Your task to perform on an android device: How big is a giraffe? Image 0: 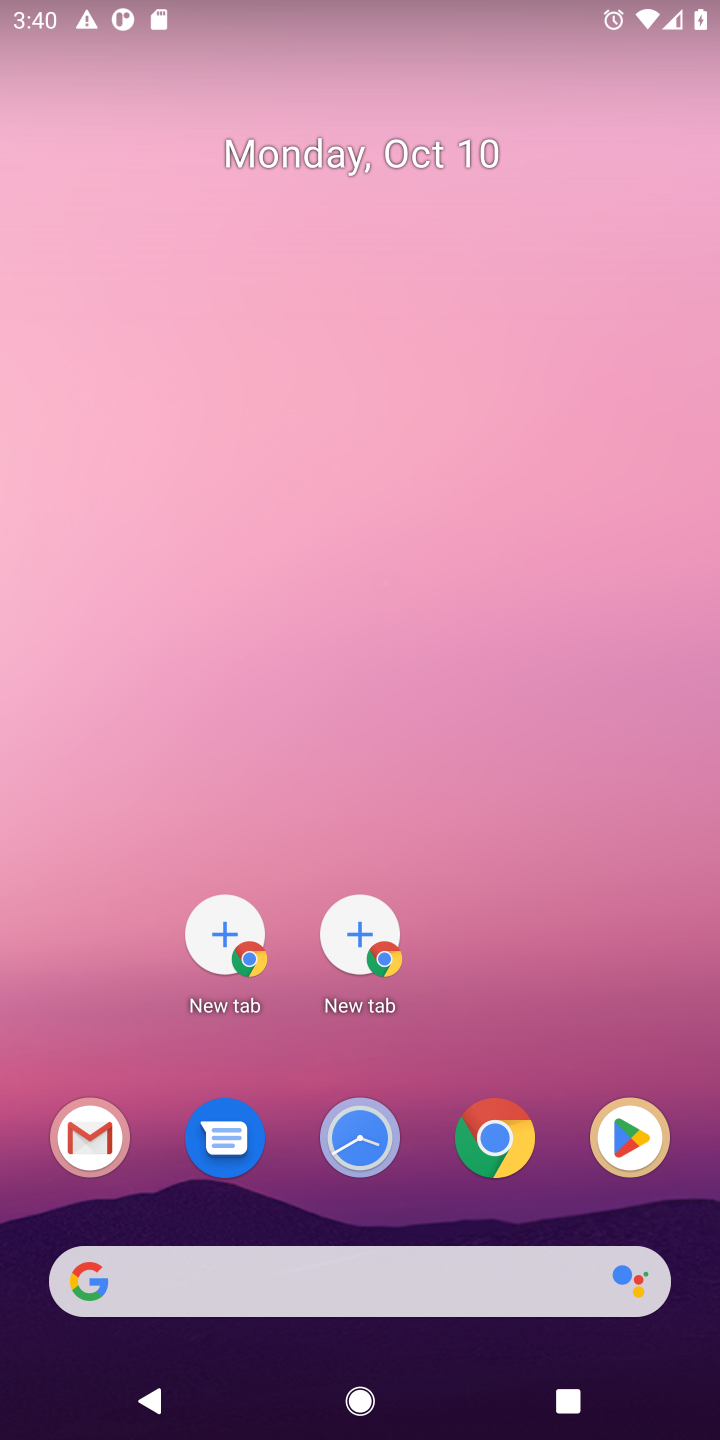
Step 0: click (488, 1156)
Your task to perform on an android device: How big is a giraffe? Image 1: 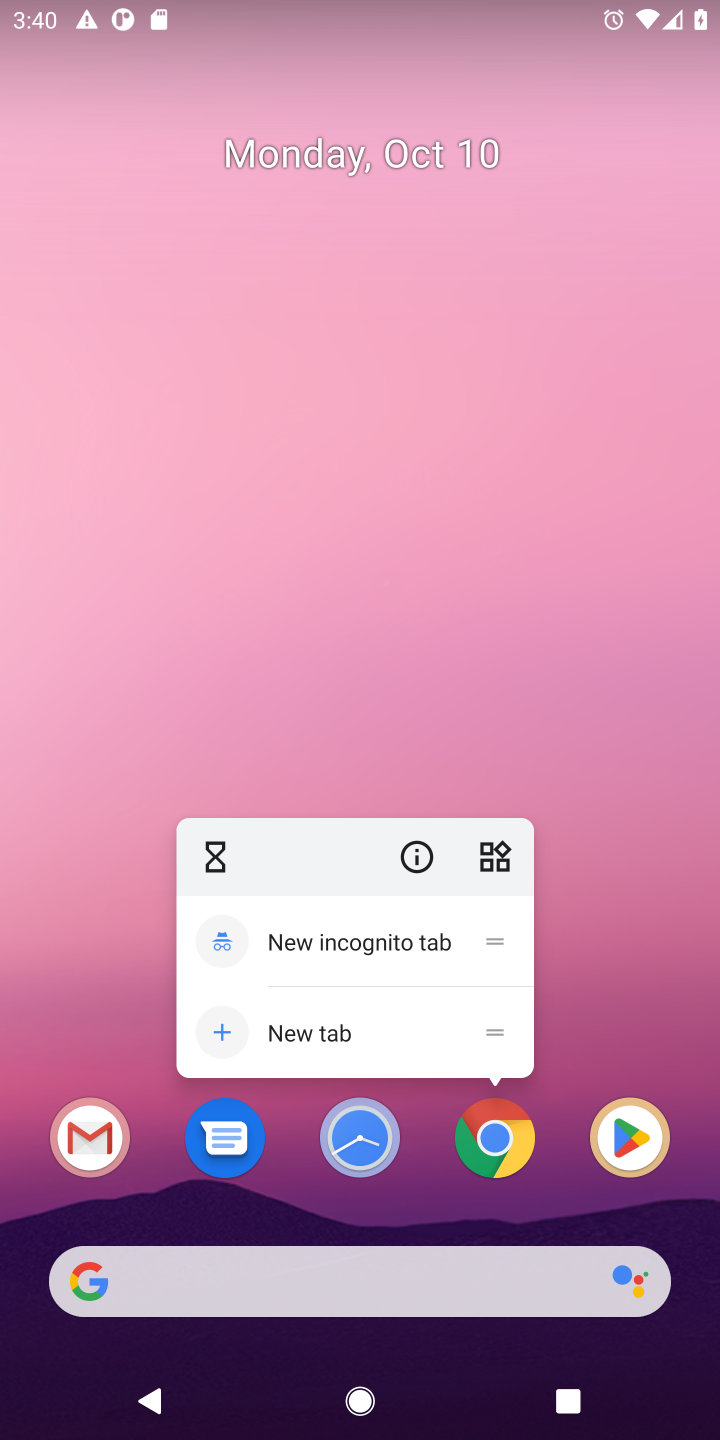
Step 1: click (507, 1148)
Your task to perform on an android device: How big is a giraffe? Image 2: 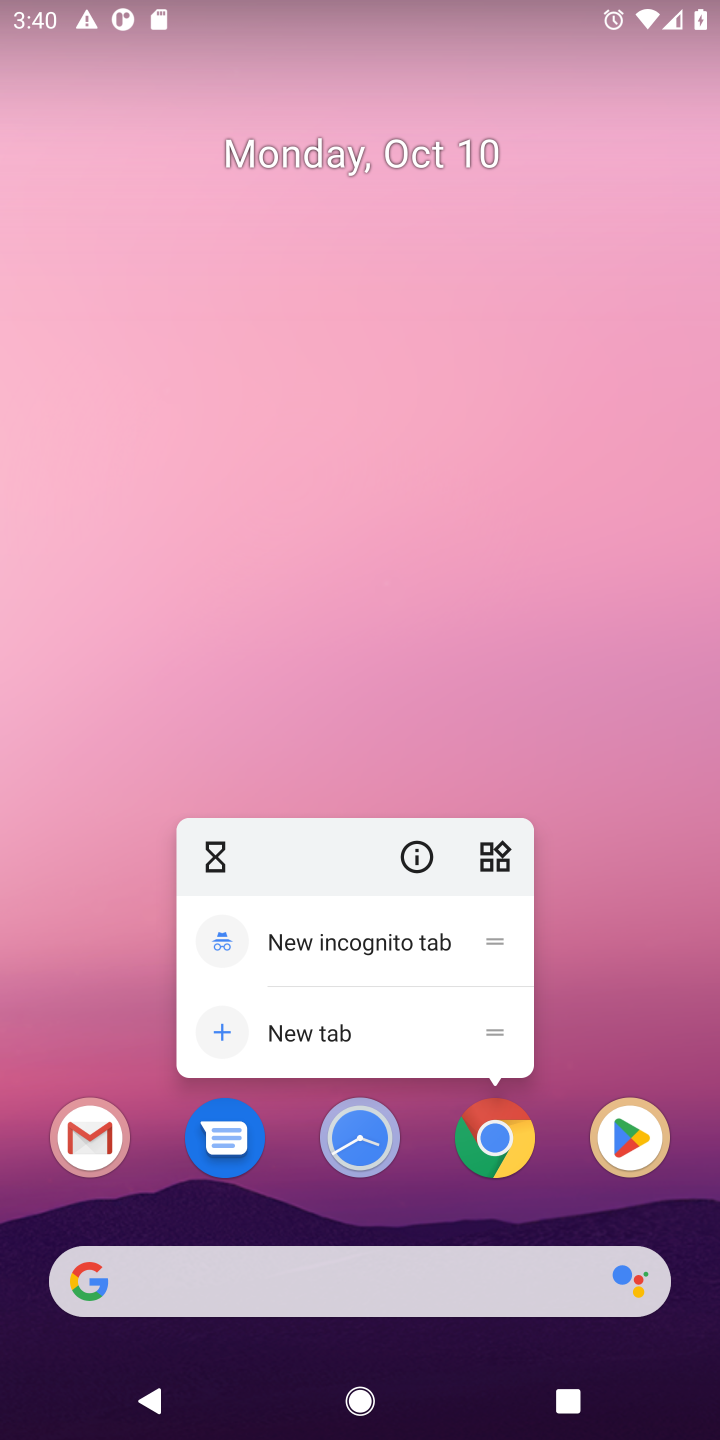
Step 2: click (505, 1154)
Your task to perform on an android device: How big is a giraffe? Image 3: 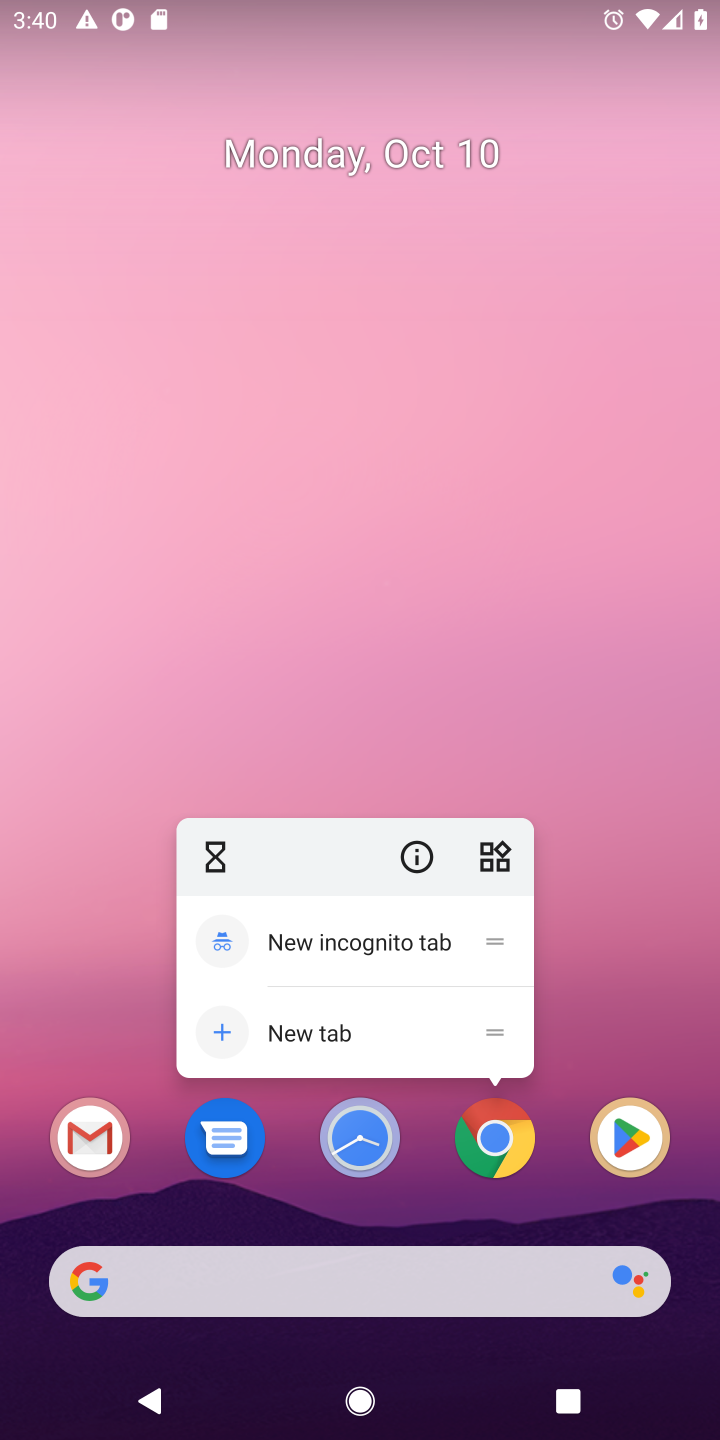
Step 3: click (501, 1143)
Your task to perform on an android device: How big is a giraffe? Image 4: 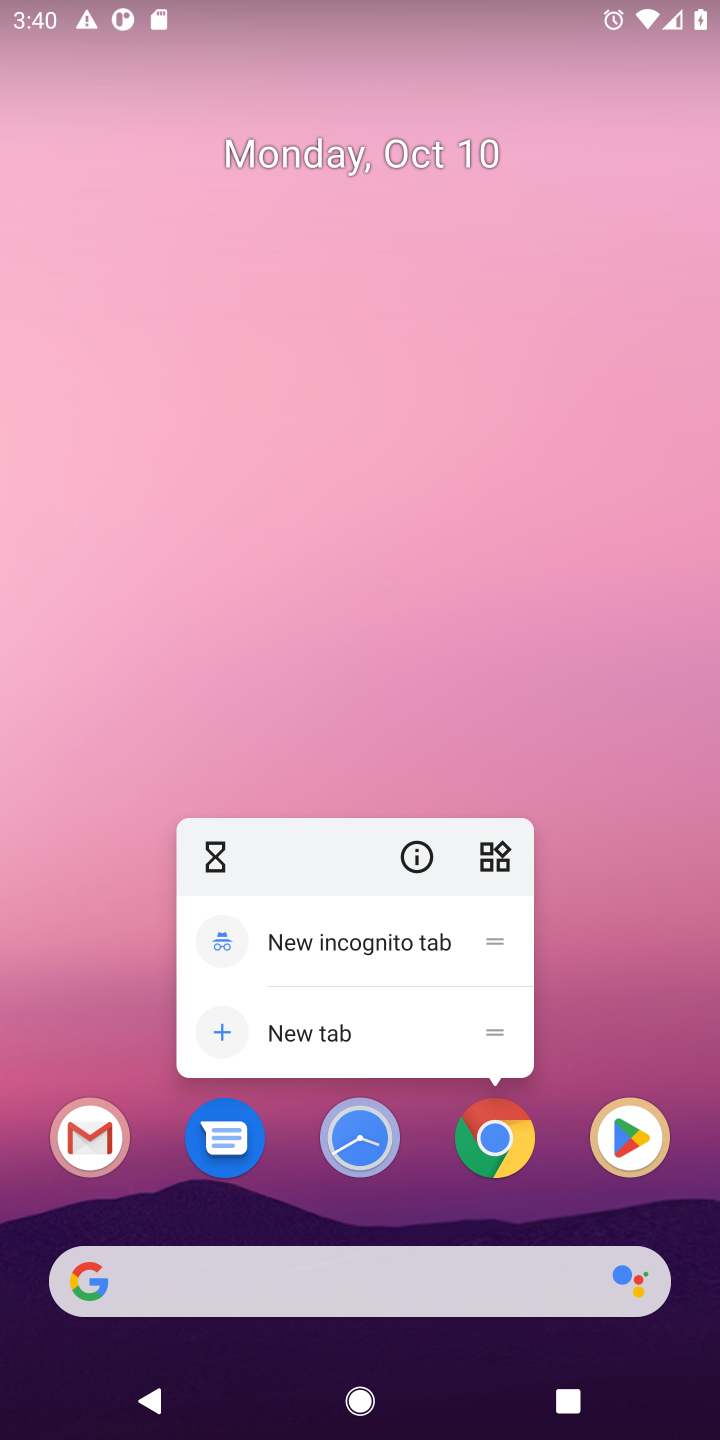
Step 4: click (499, 1136)
Your task to perform on an android device: How big is a giraffe? Image 5: 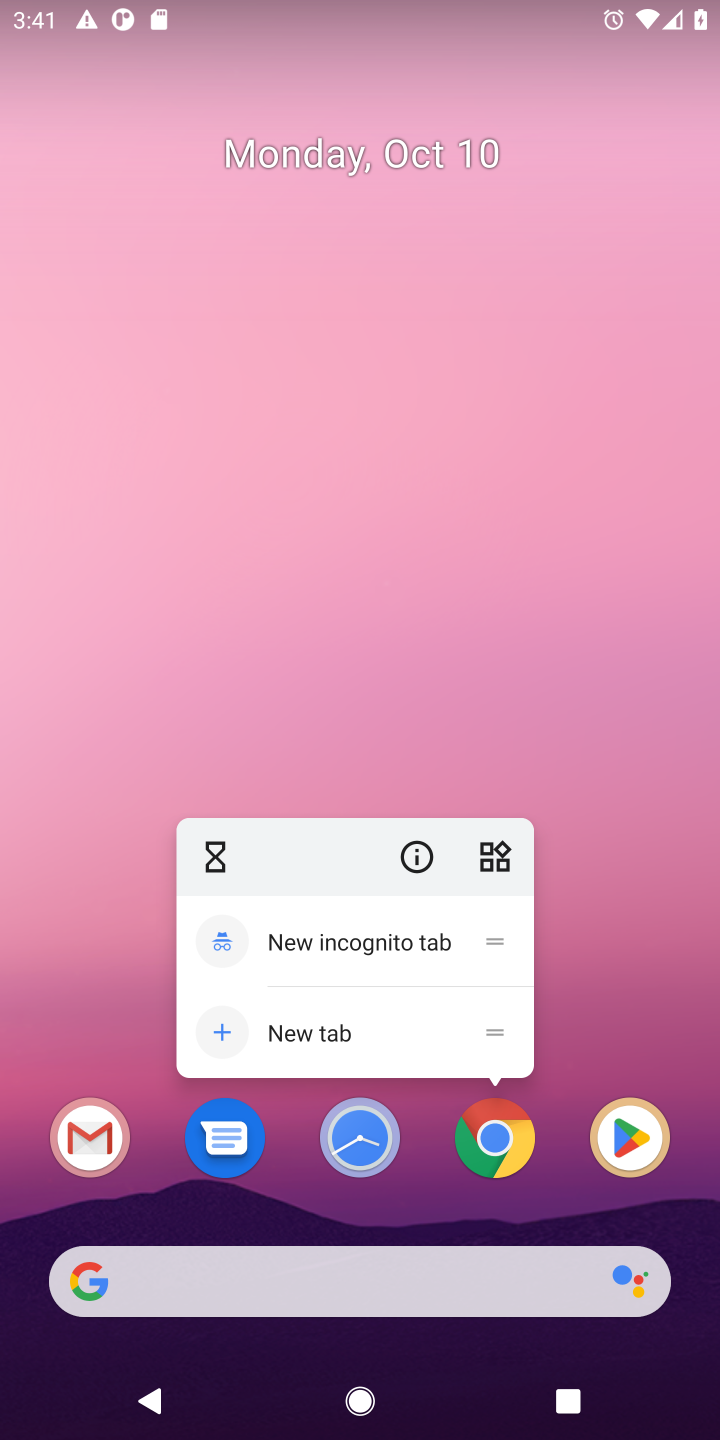
Step 5: click (501, 1154)
Your task to perform on an android device: How big is a giraffe? Image 6: 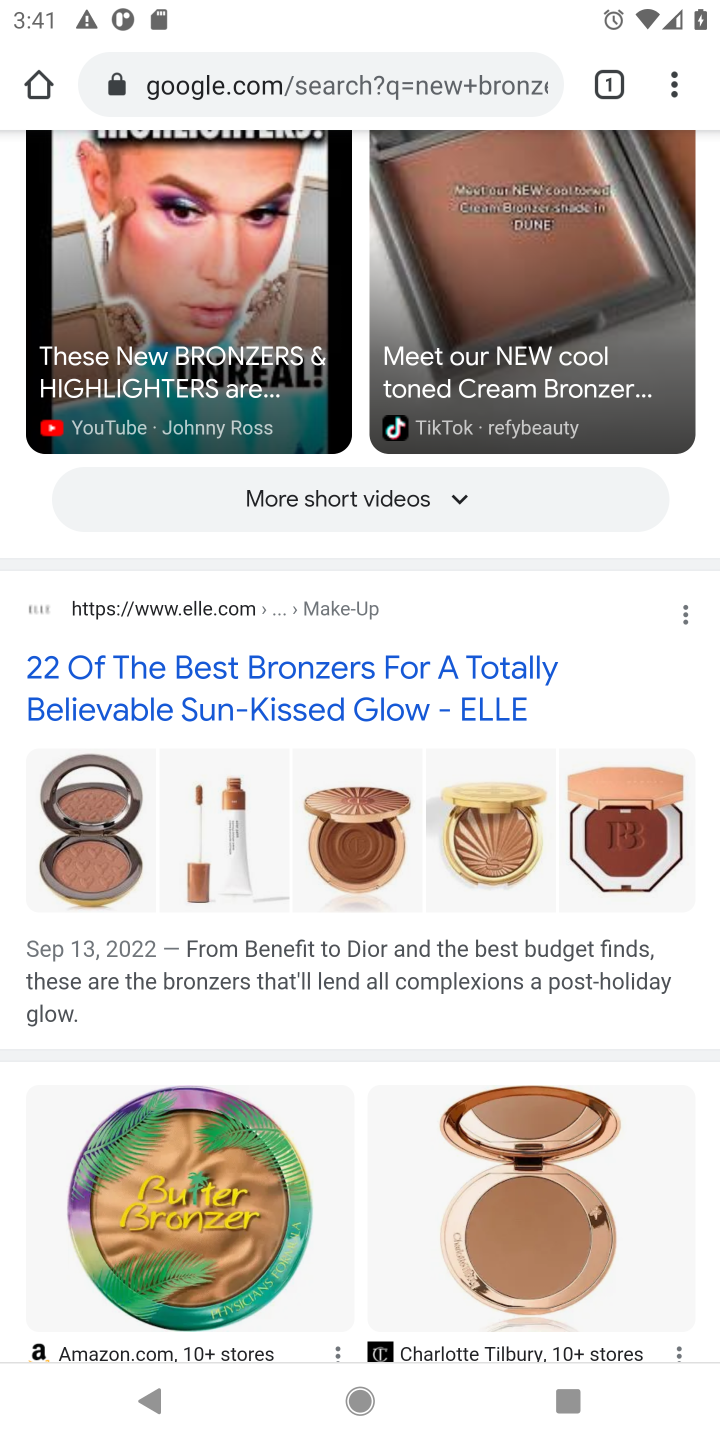
Step 6: click (403, 74)
Your task to perform on an android device: How big is a giraffe? Image 7: 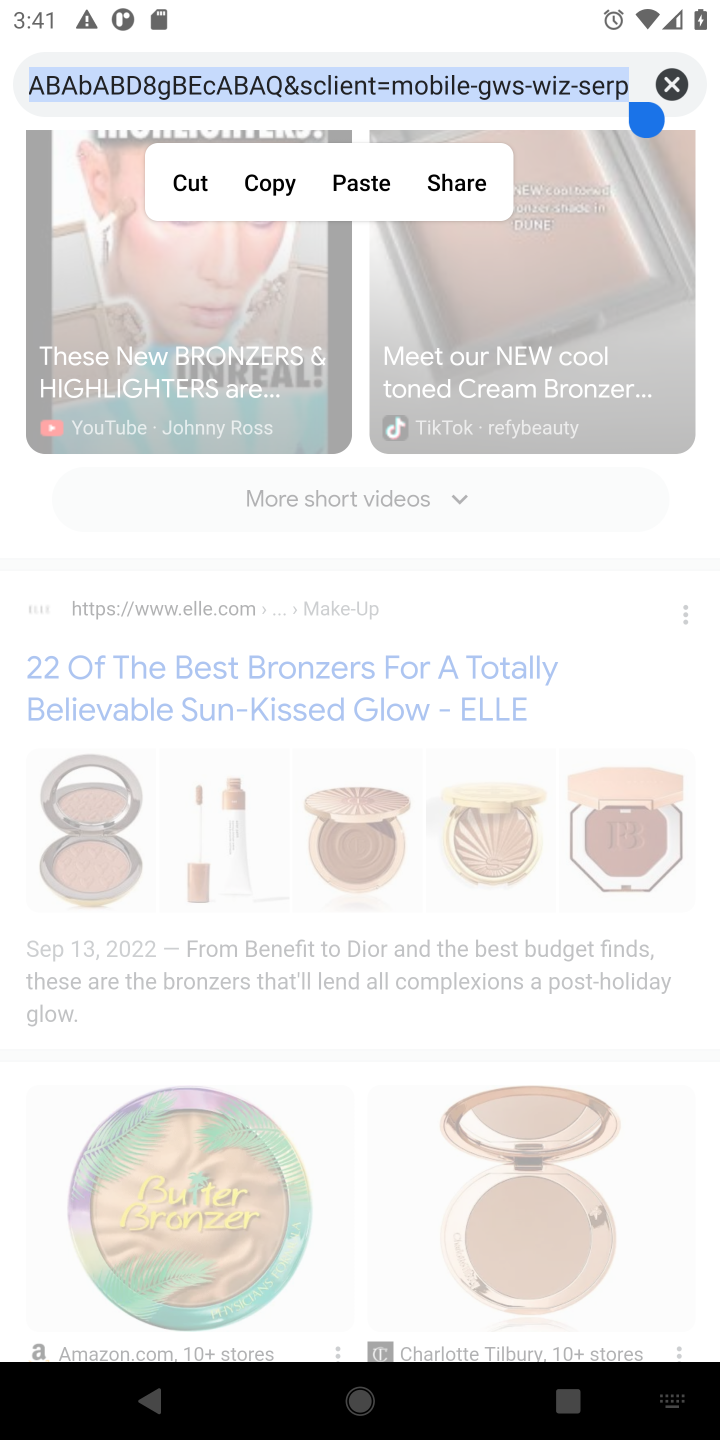
Step 7: type "how big is a giraffe"
Your task to perform on an android device: How big is a giraffe? Image 8: 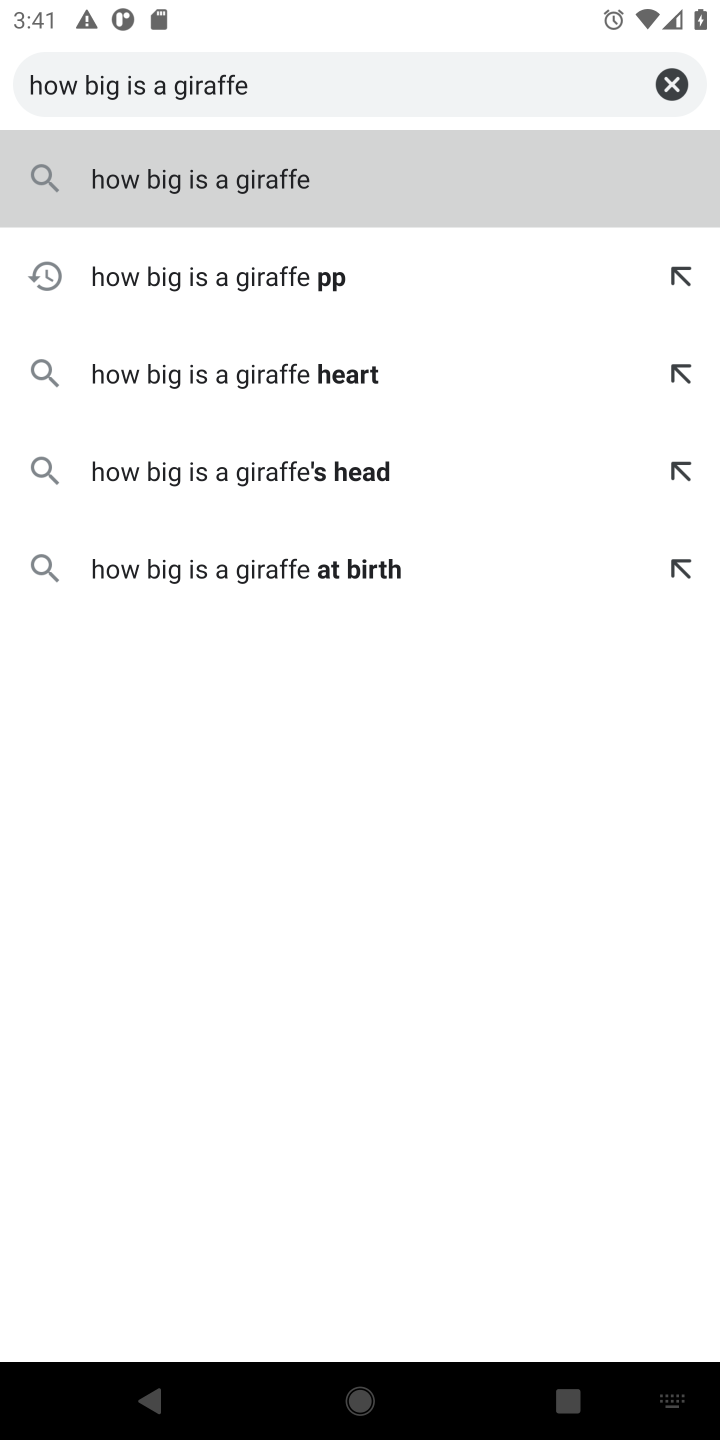
Step 8: press enter
Your task to perform on an android device: How big is a giraffe? Image 9: 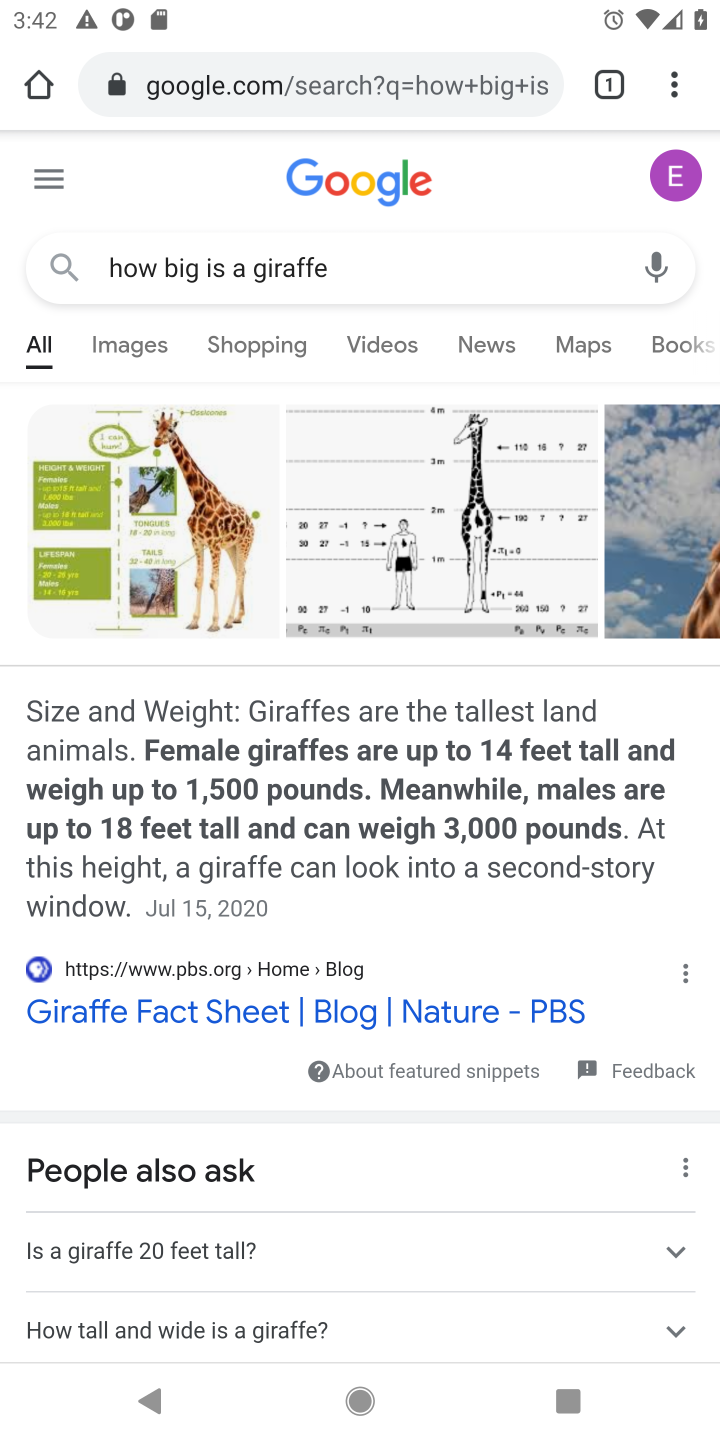
Step 9: task complete